Your task to perform on an android device: Show the shopping cart on target. Image 0: 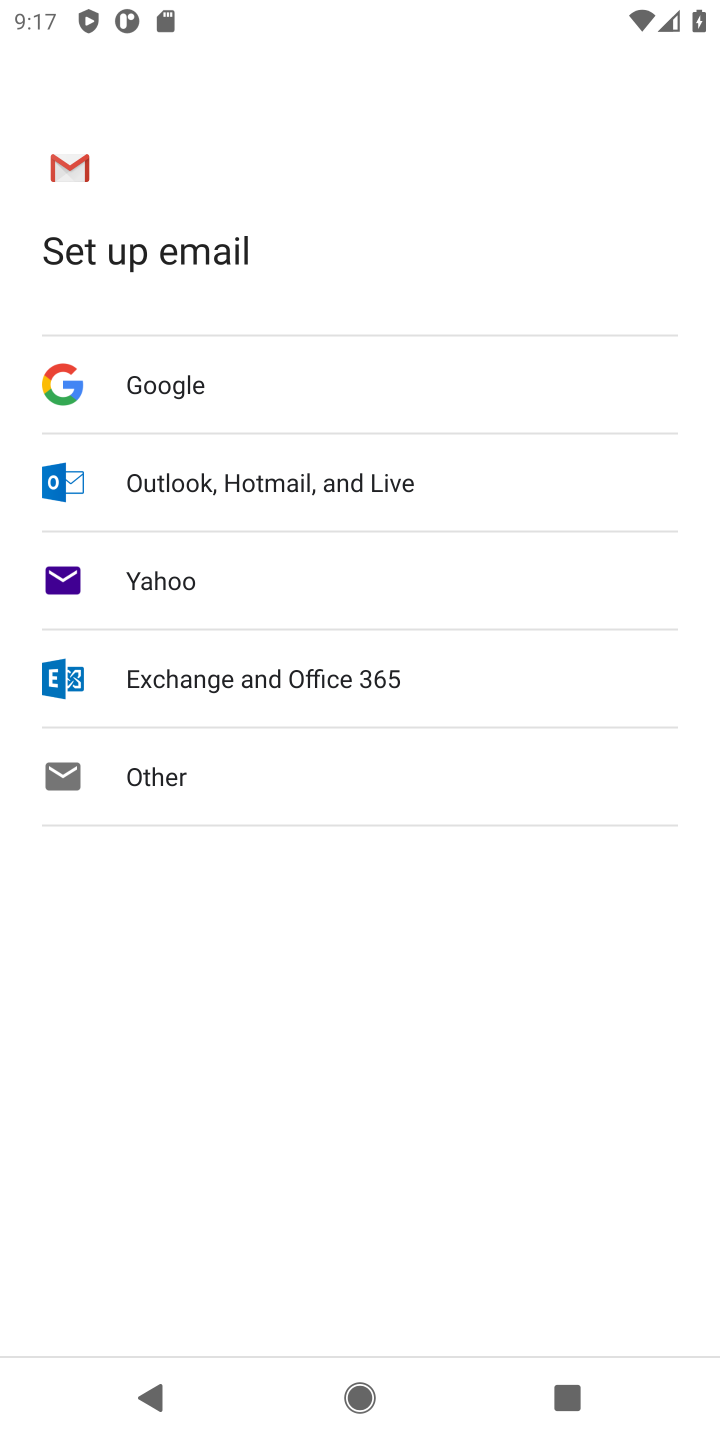
Step 0: press home button
Your task to perform on an android device: Show the shopping cart on target. Image 1: 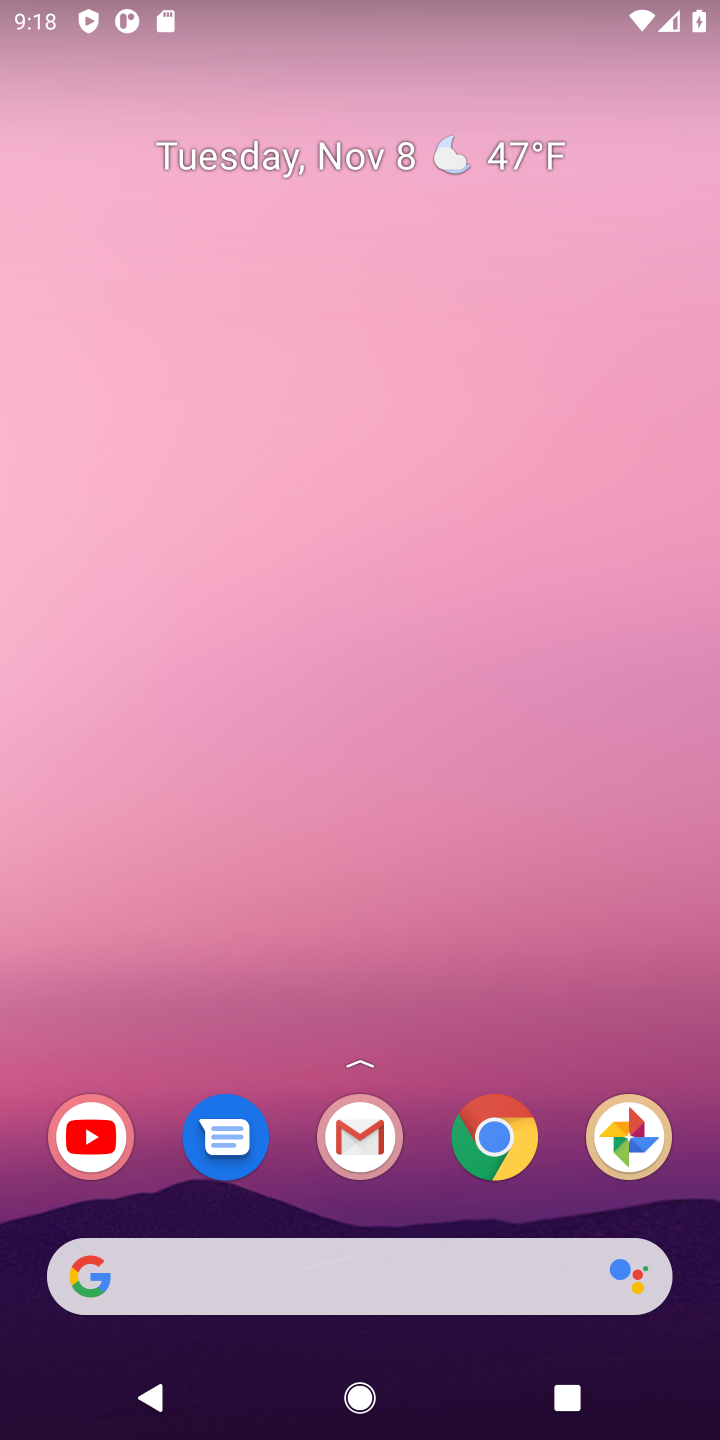
Step 1: click (498, 1139)
Your task to perform on an android device: Show the shopping cart on target. Image 2: 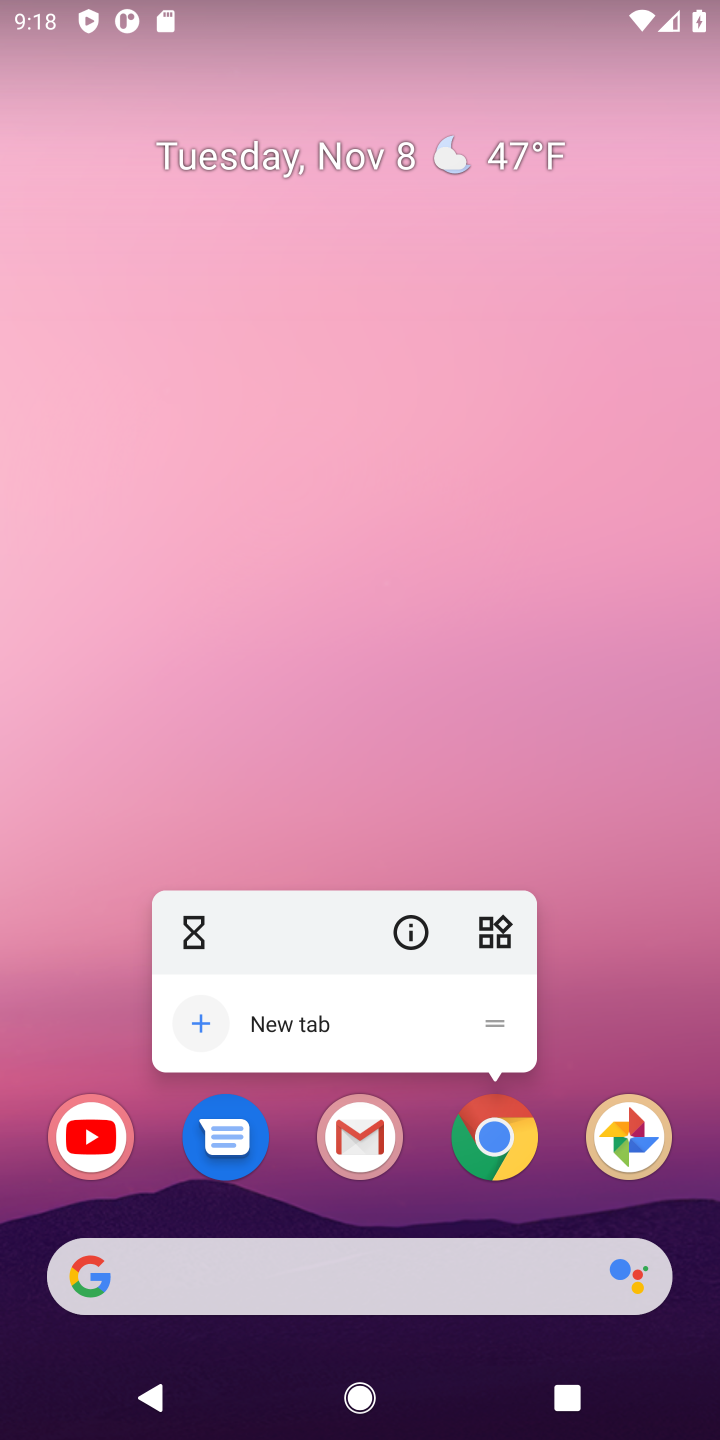
Step 2: click (498, 1139)
Your task to perform on an android device: Show the shopping cart on target. Image 3: 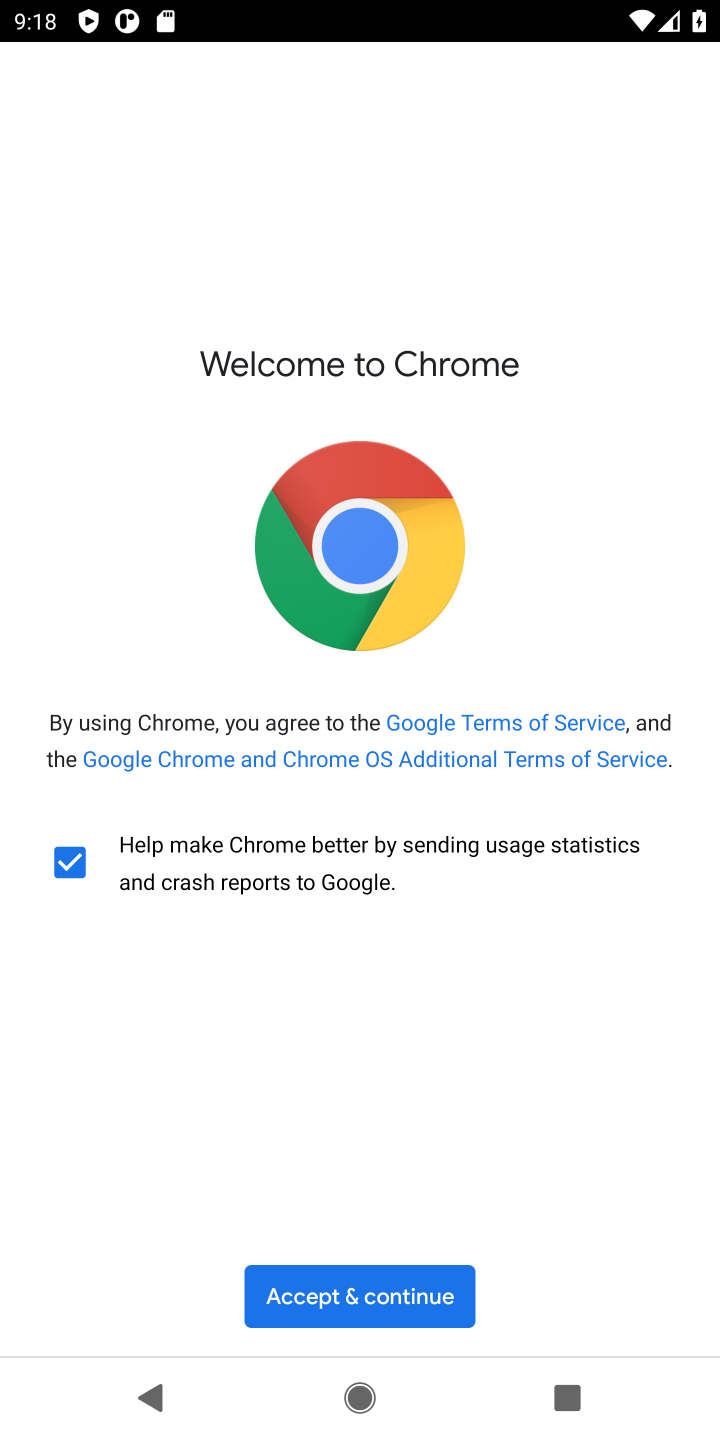
Step 3: click (365, 1291)
Your task to perform on an android device: Show the shopping cart on target. Image 4: 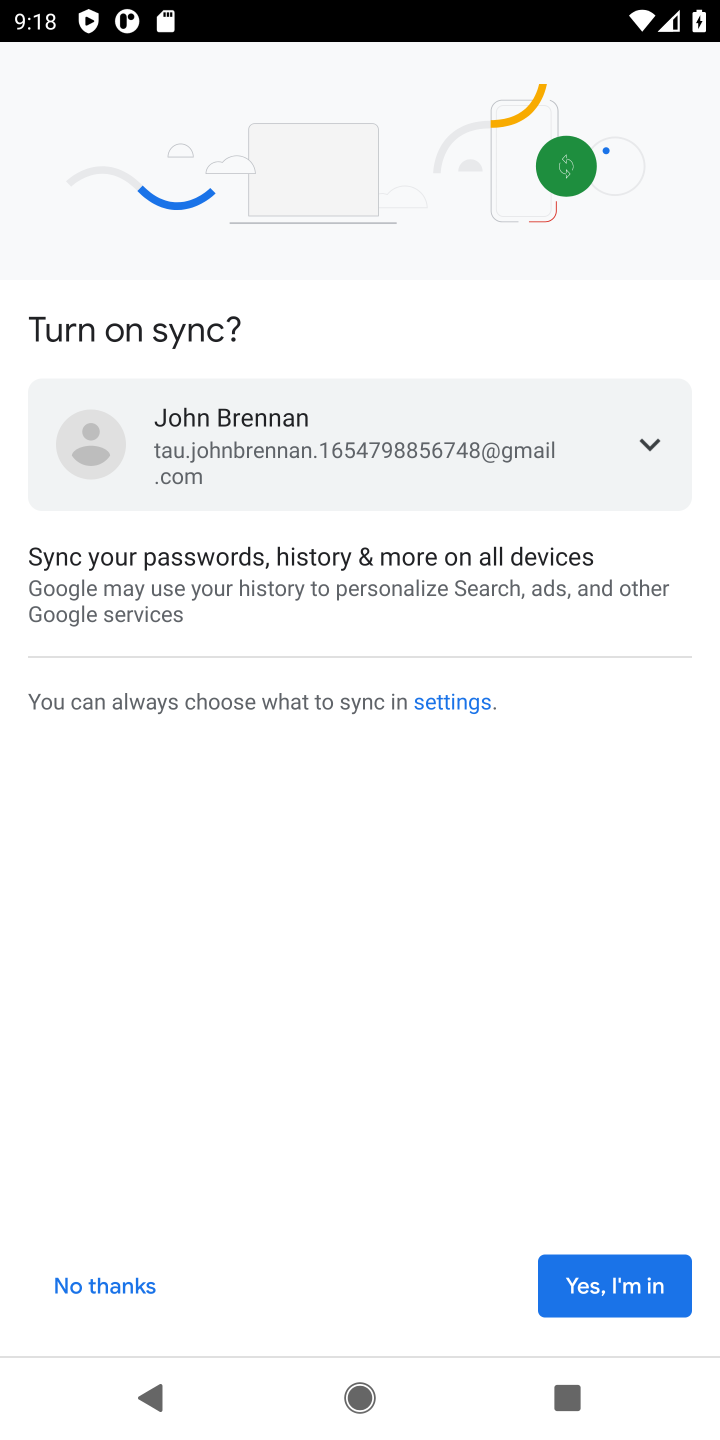
Step 4: click (612, 1282)
Your task to perform on an android device: Show the shopping cart on target. Image 5: 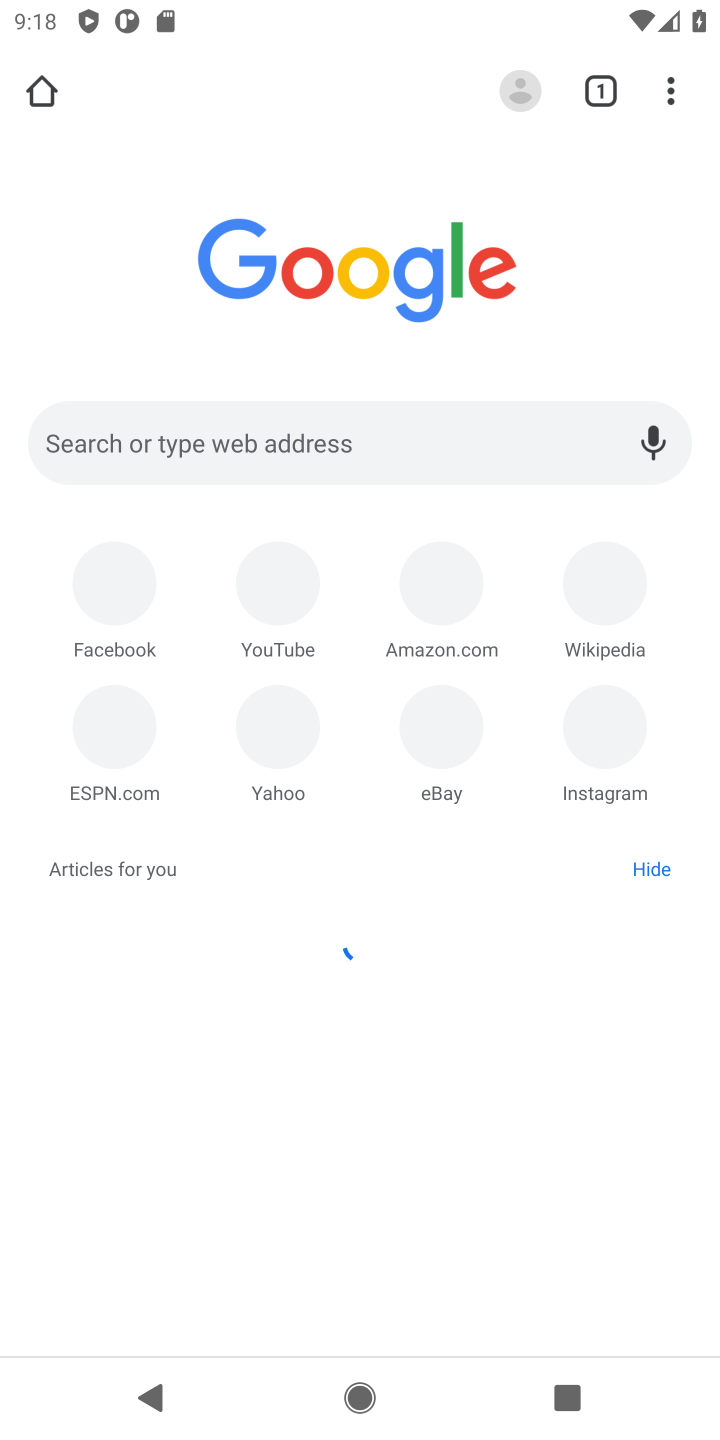
Step 5: click (303, 422)
Your task to perform on an android device: Show the shopping cart on target. Image 6: 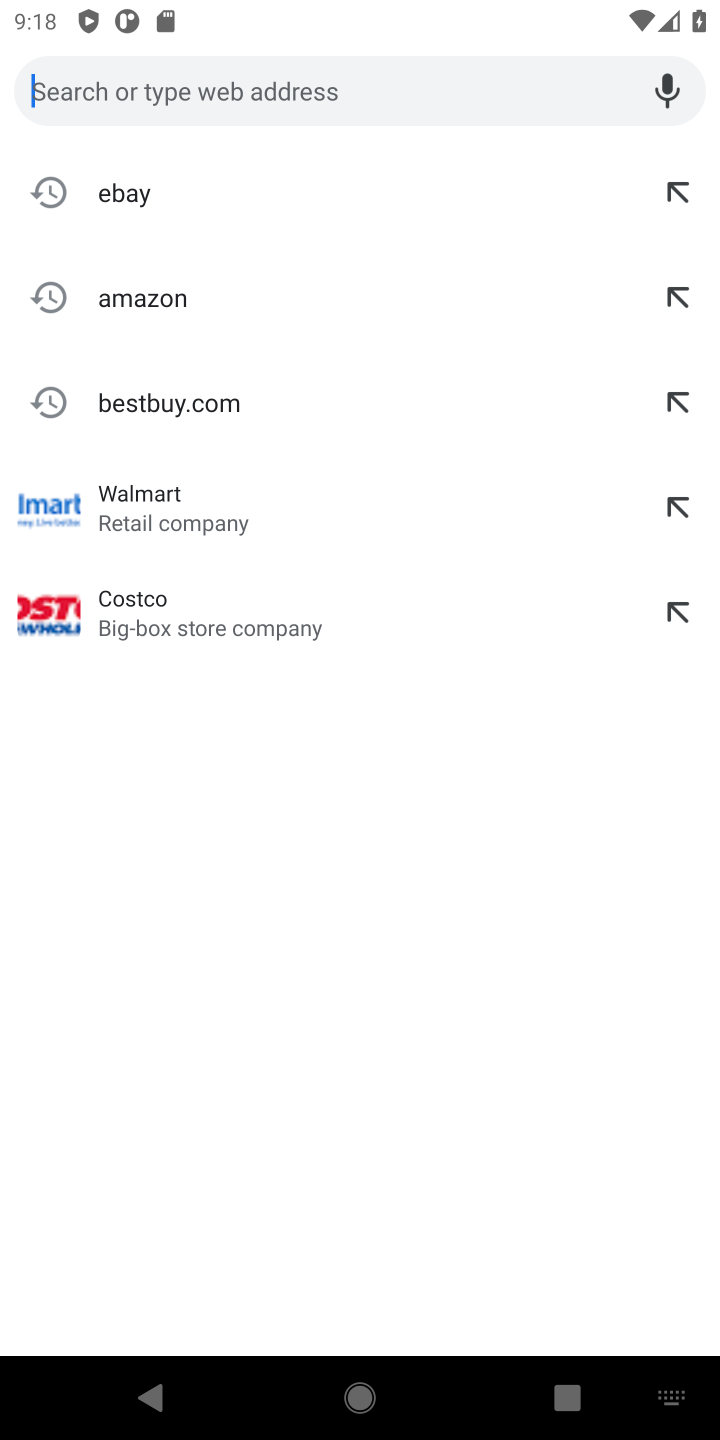
Step 6: type "target"
Your task to perform on an android device: Show the shopping cart on target. Image 7: 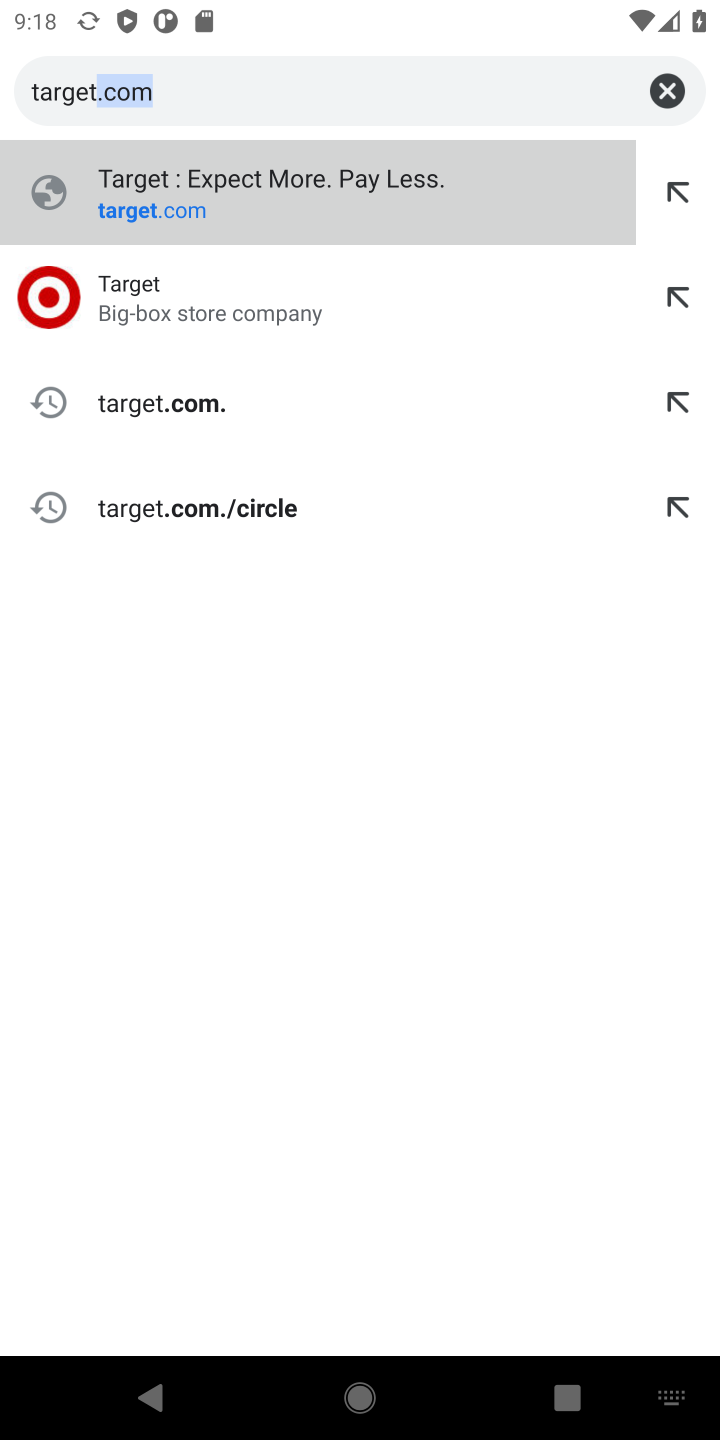
Step 7: click (131, 293)
Your task to perform on an android device: Show the shopping cart on target. Image 8: 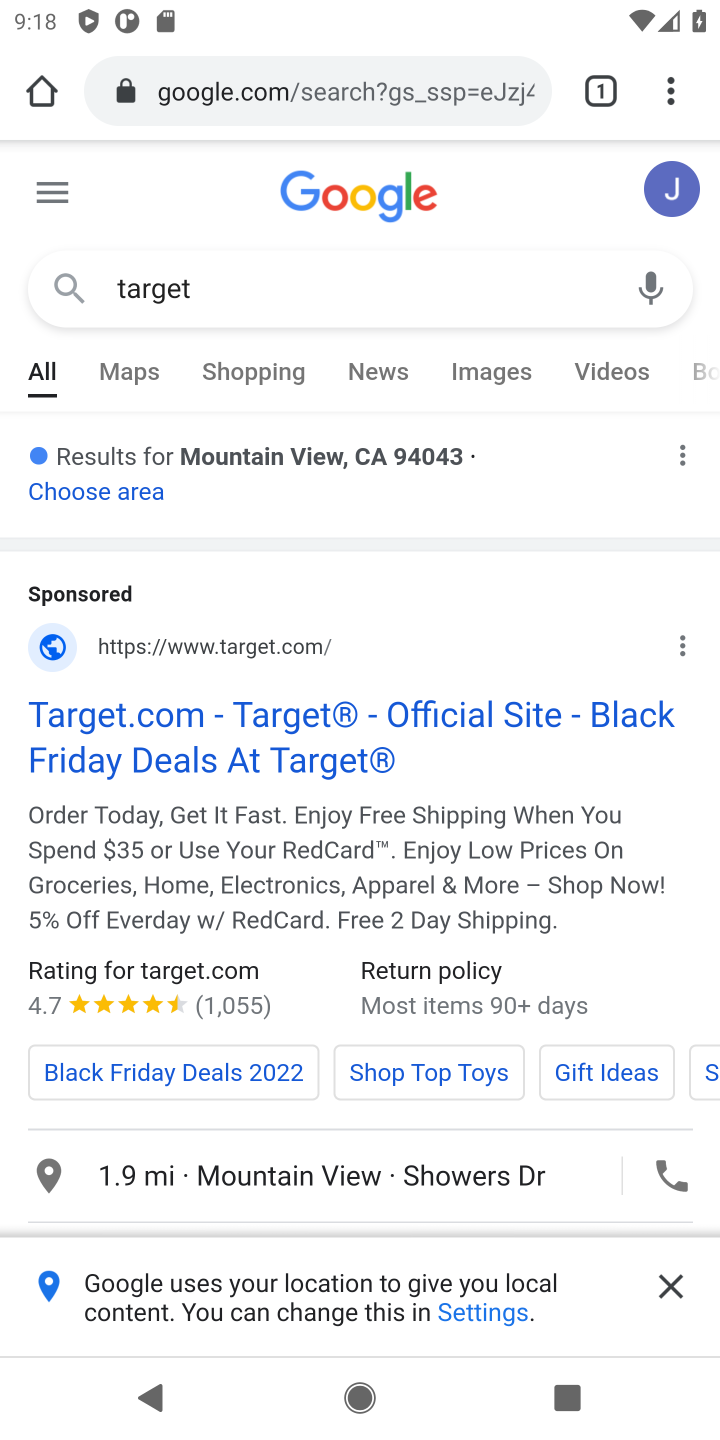
Step 8: drag from (379, 1028) to (489, 380)
Your task to perform on an android device: Show the shopping cart on target. Image 9: 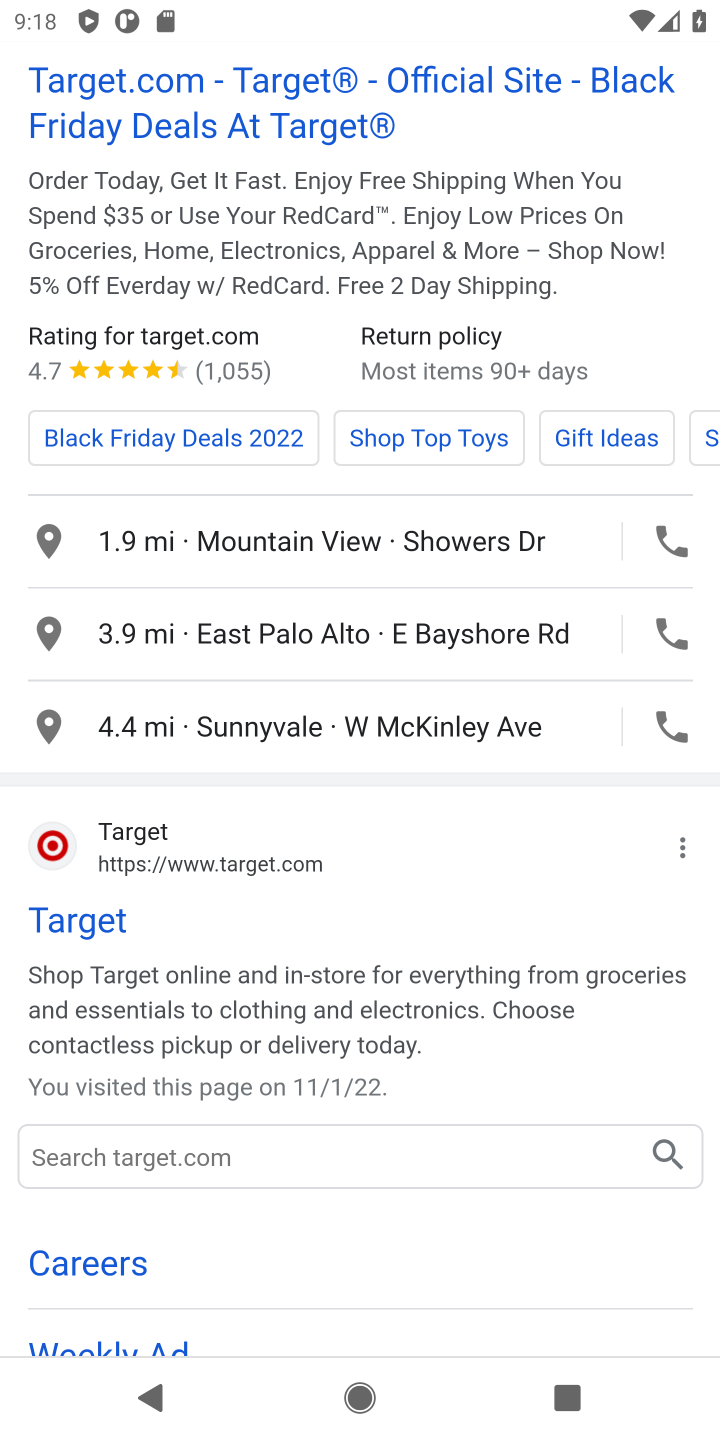
Step 9: click (166, 889)
Your task to perform on an android device: Show the shopping cart on target. Image 10: 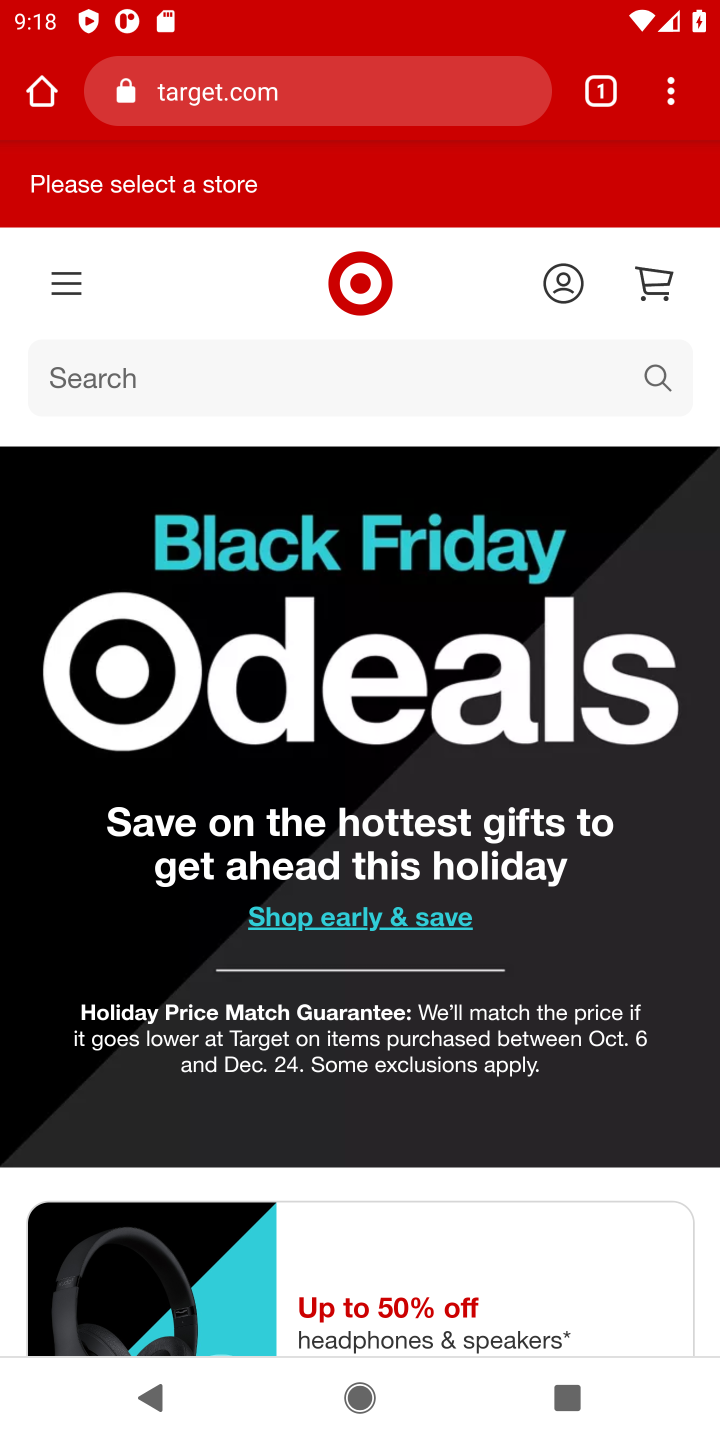
Step 10: click (653, 278)
Your task to perform on an android device: Show the shopping cart on target. Image 11: 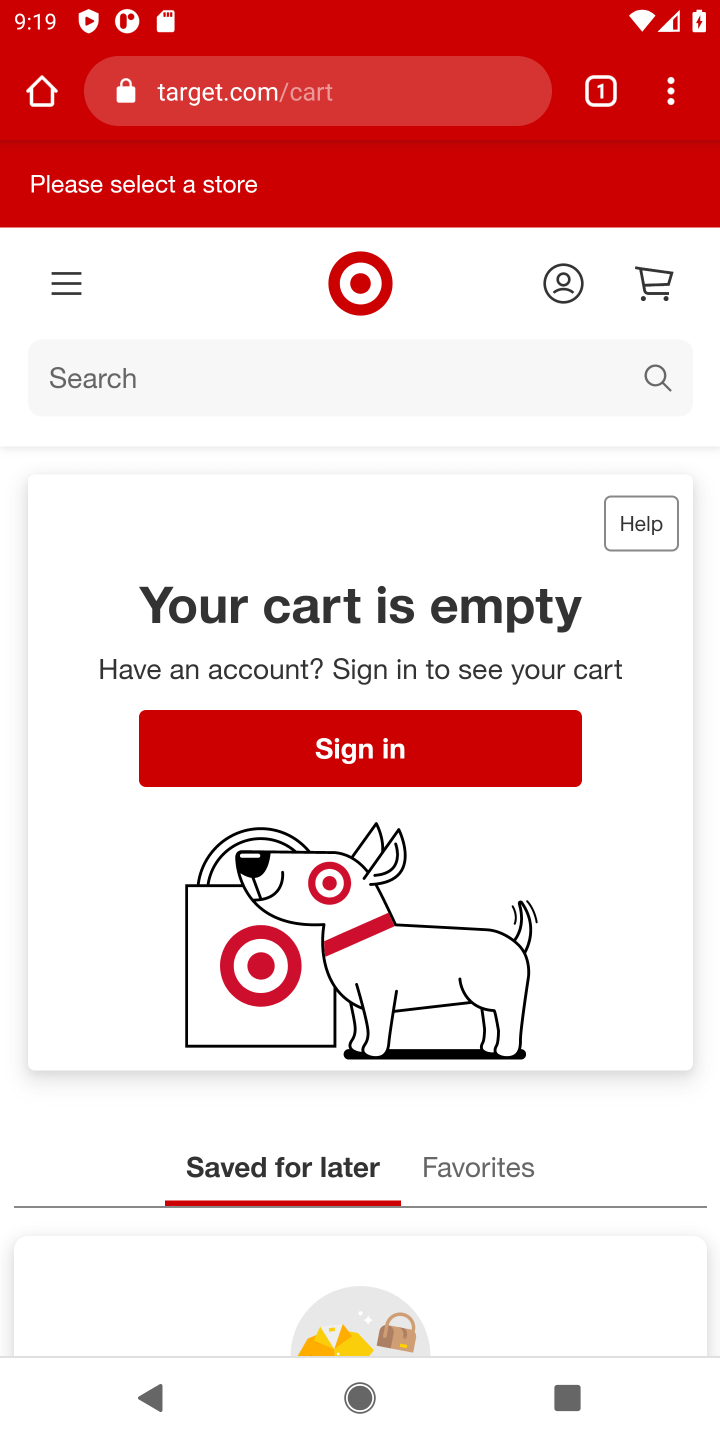
Step 11: task complete